Your task to perform on an android device: What's the weather going to be tomorrow? Image 0: 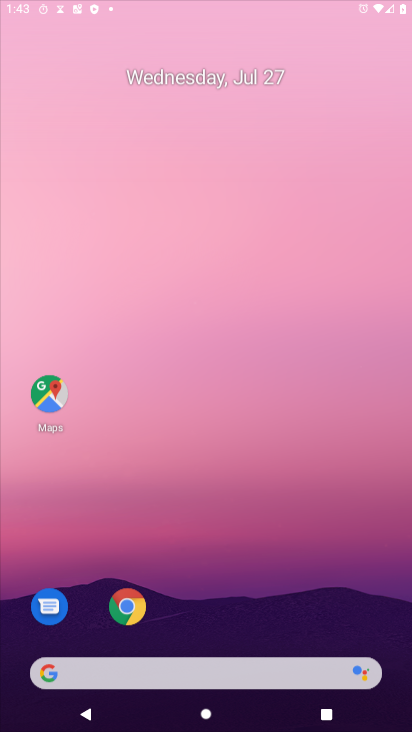
Step 0: click (192, 88)
Your task to perform on an android device: What's the weather going to be tomorrow? Image 1: 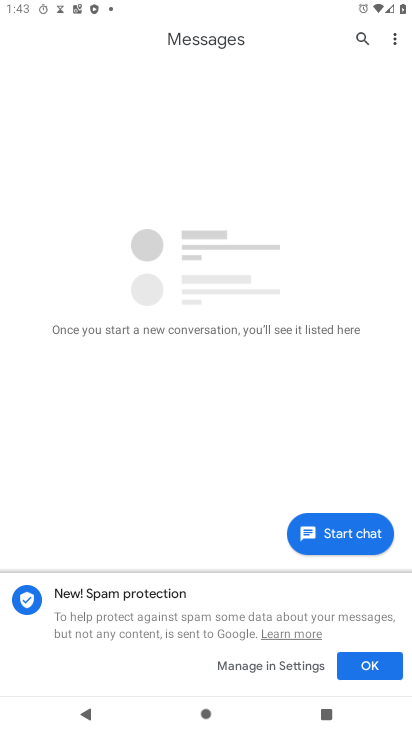
Step 1: press home button
Your task to perform on an android device: What's the weather going to be tomorrow? Image 2: 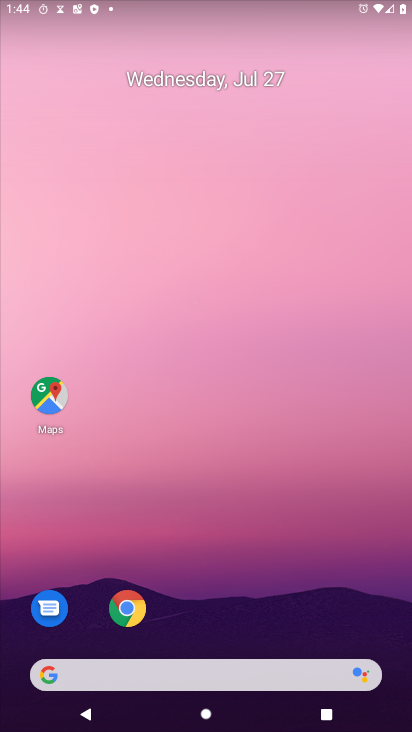
Step 2: click (117, 680)
Your task to perform on an android device: What's the weather going to be tomorrow? Image 3: 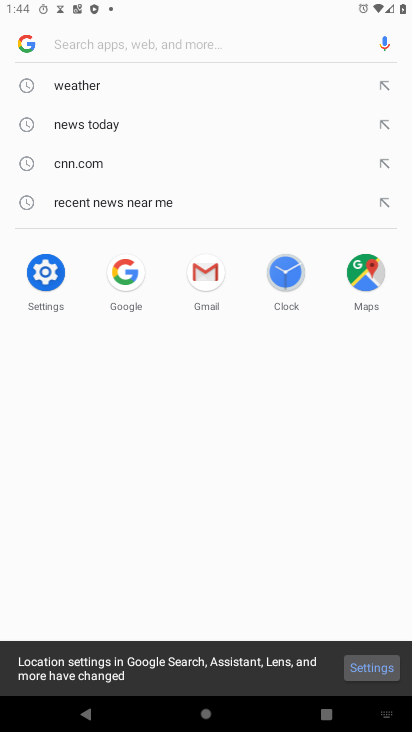
Step 3: click (72, 96)
Your task to perform on an android device: What's the weather going to be tomorrow? Image 4: 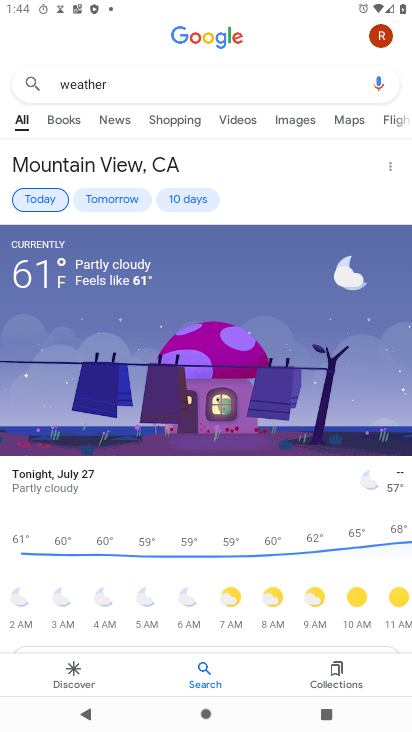
Step 4: click (106, 194)
Your task to perform on an android device: What's the weather going to be tomorrow? Image 5: 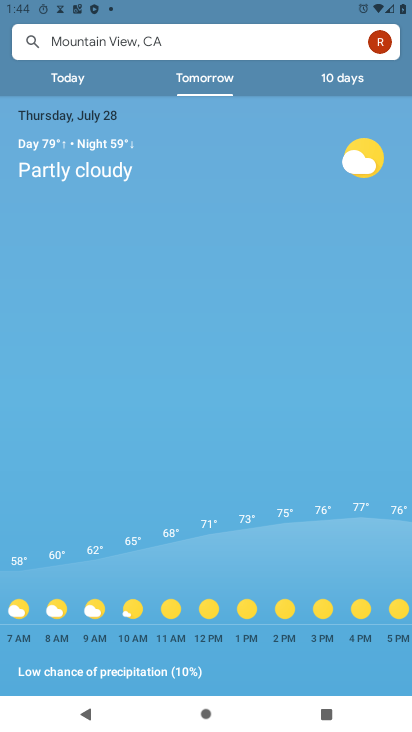
Step 5: task complete